Your task to perform on an android device: open app "ZOOM Cloud Meetings" (install if not already installed) Image 0: 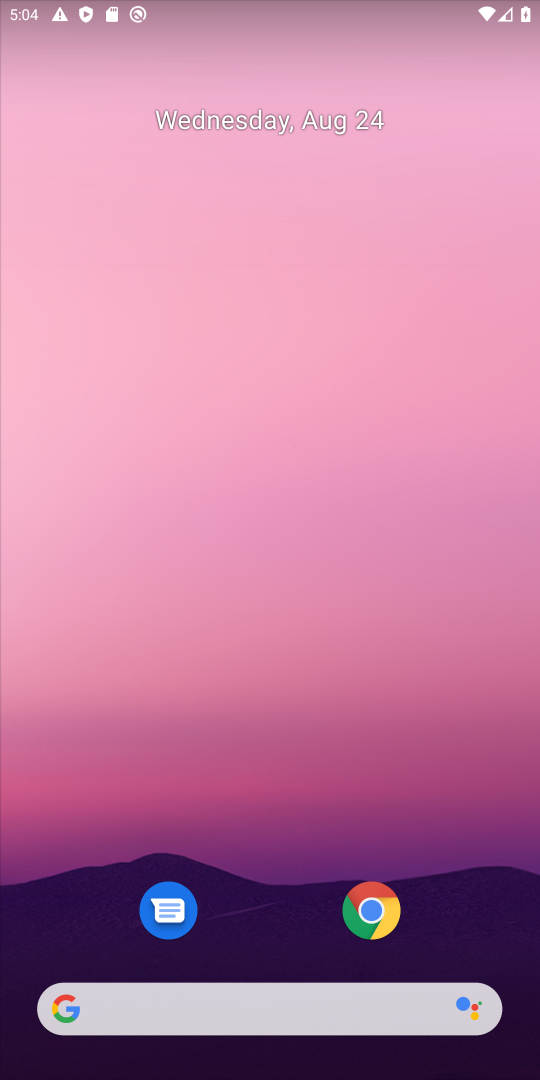
Step 0: drag from (286, 969) to (287, 6)
Your task to perform on an android device: open app "ZOOM Cloud Meetings" (install if not already installed) Image 1: 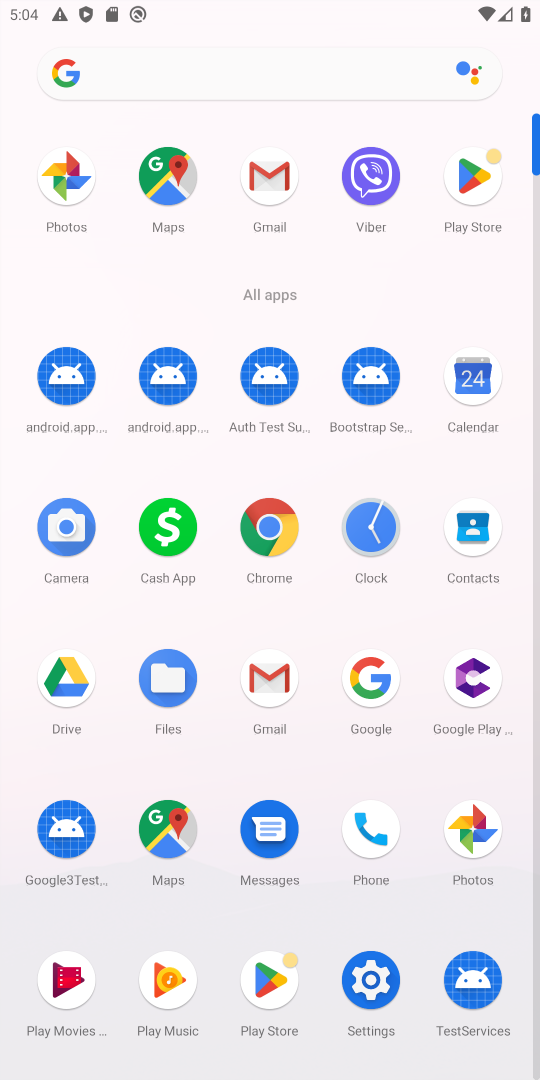
Step 1: click (468, 194)
Your task to perform on an android device: open app "ZOOM Cloud Meetings" (install if not already installed) Image 2: 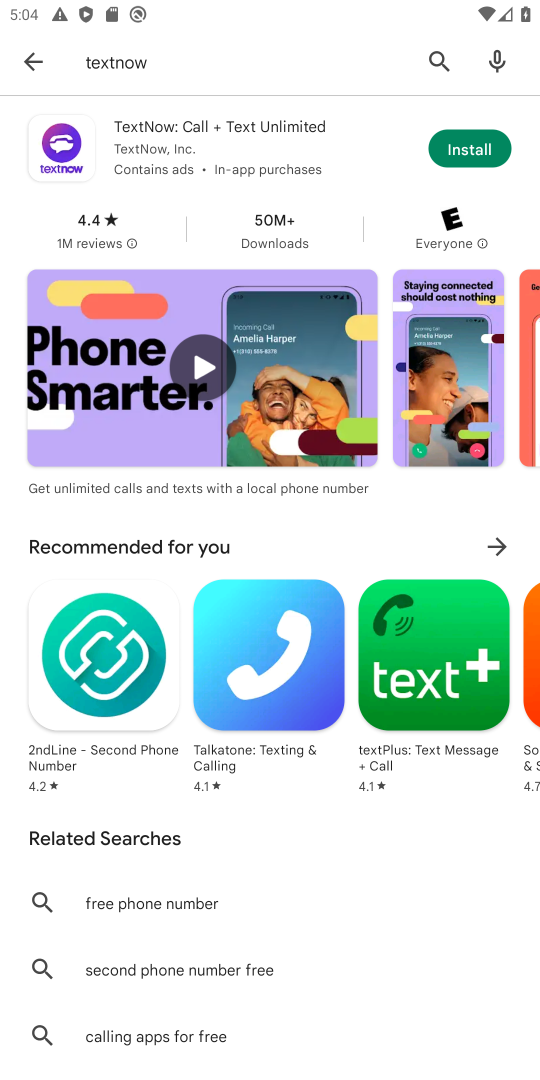
Step 2: click (442, 68)
Your task to perform on an android device: open app "ZOOM Cloud Meetings" (install if not already installed) Image 3: 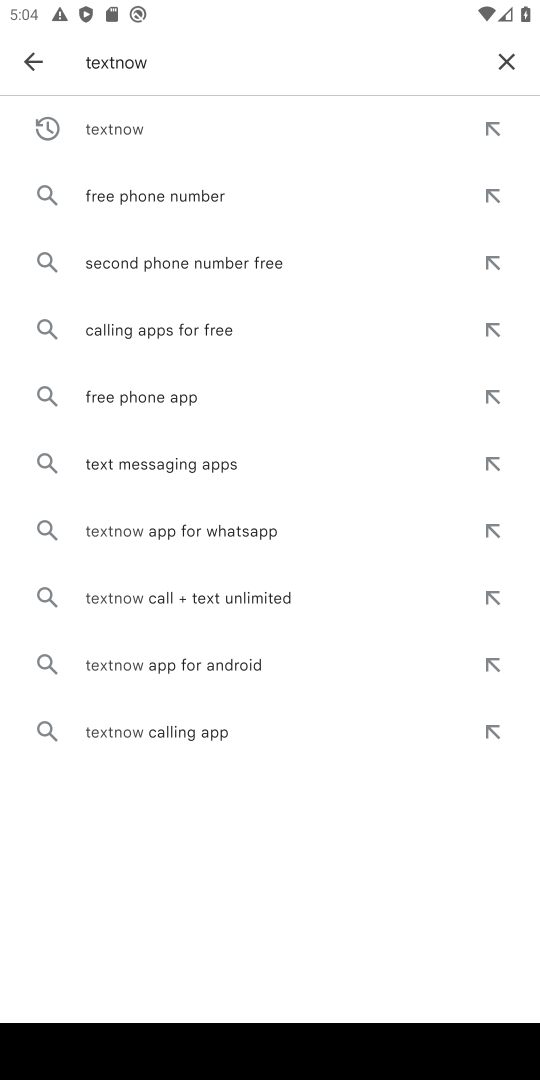
Step 3: click (513, 54)
Your task to perform on an android device: open app "ZOOM Cloud Meetings" (install if not already installed) Image 4: 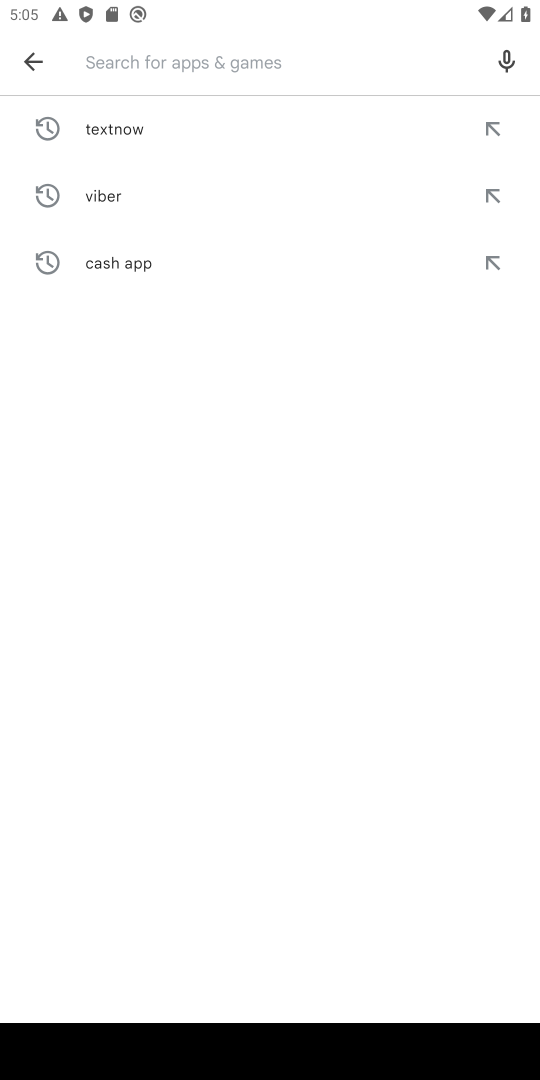
Step 4: type "zoom cloud meeting"
Your task to perform on an android device: open app "ZOOM Cloud Meetings" (install if not already installed) Image 5: 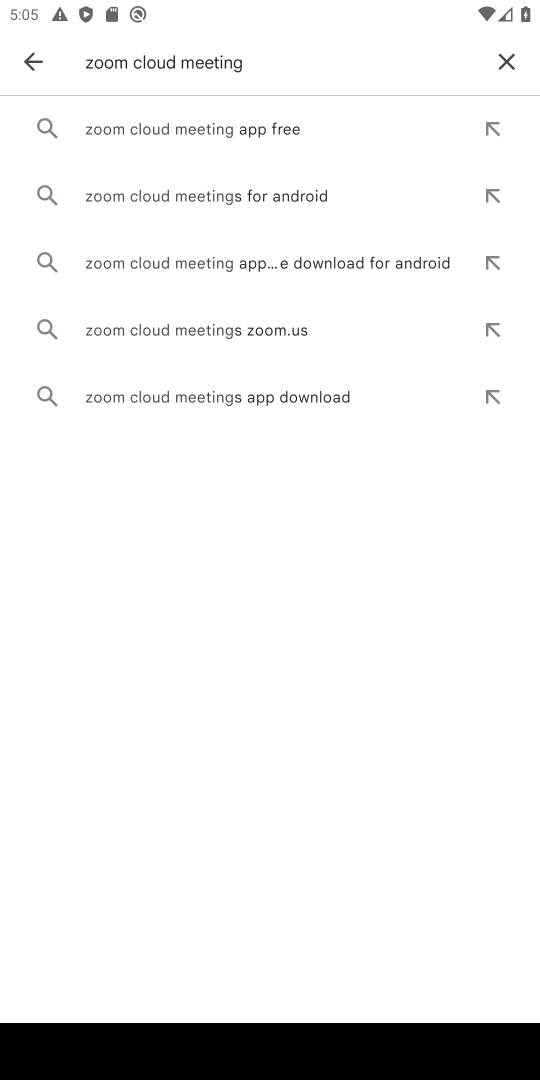
Step 5: click (217, 133)
Your task to perform on an android device: open app "ZOOM Cloud Meetings" (install if not already installed) Image 6: 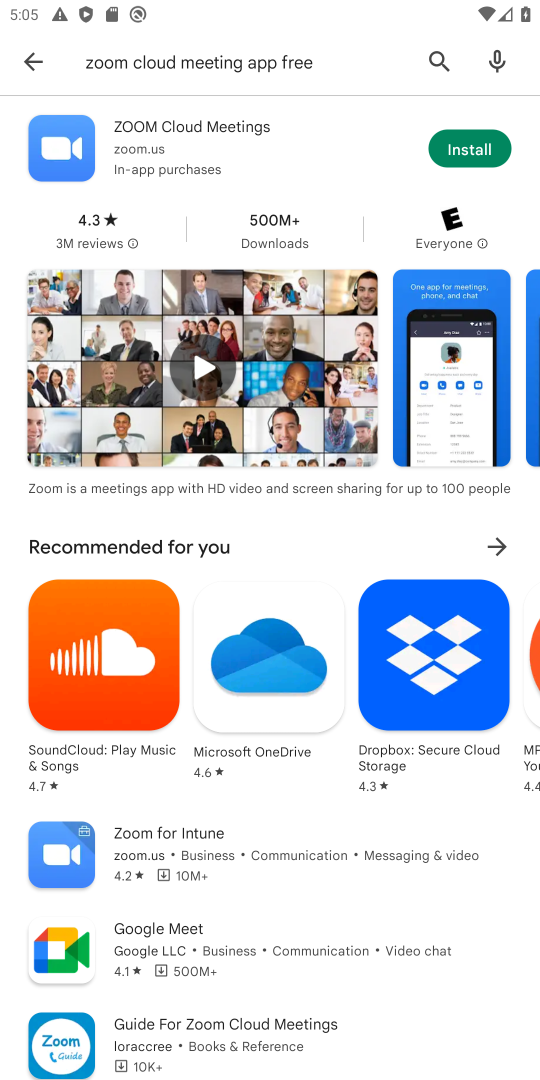
Step 6: click (492, 154)
Your task to perform on an android device: open app "ZOOM Cloud Meetings" (install if not already installed) Image 7: 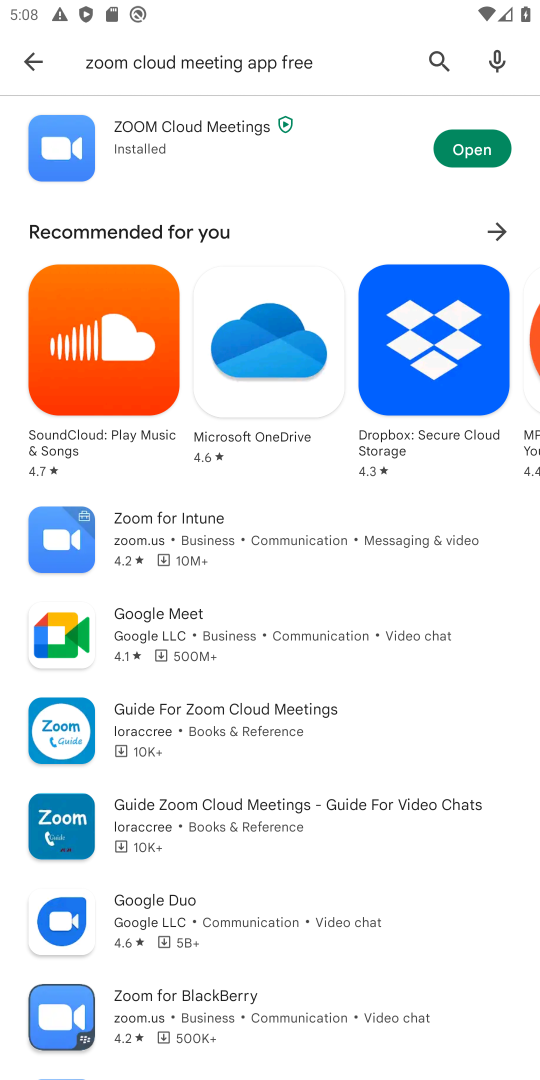
Step 7: click (473, 161)
Your task to perform on an android device: open app "ZOOM Cloud Meetings" (install if not already installed) Image 8: 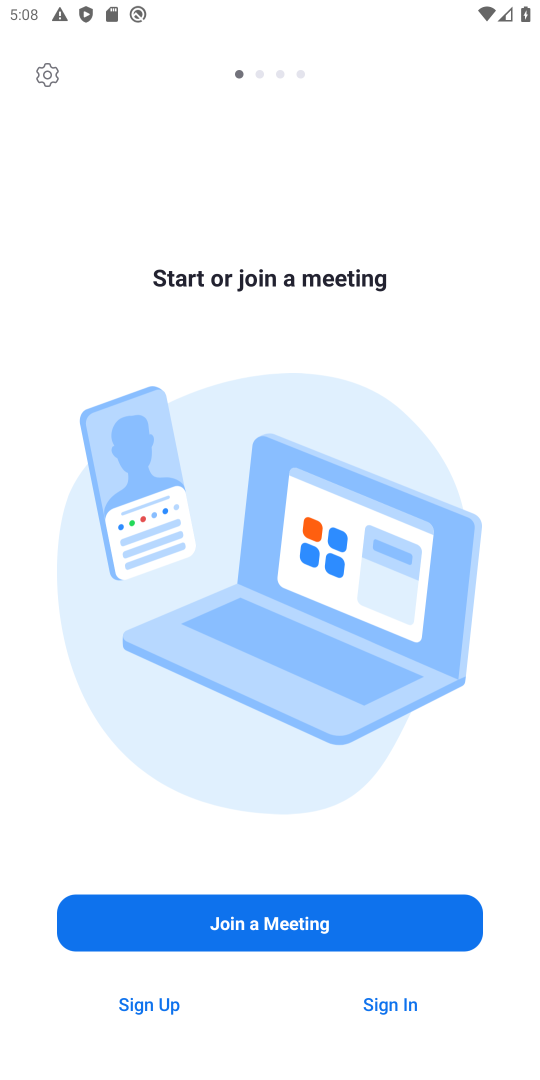
Step 8: task complete